Your task to perform on an android device: create a new album in the google photos Image 0: 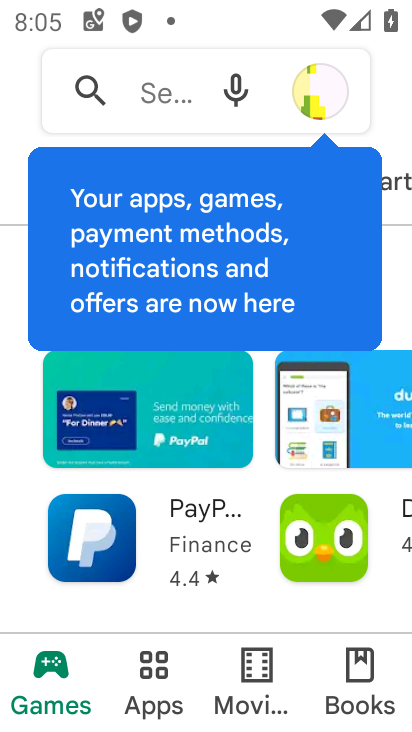
Step 0: press back button
Your task to perform on an android device: create a new album in the google photos Image 1: 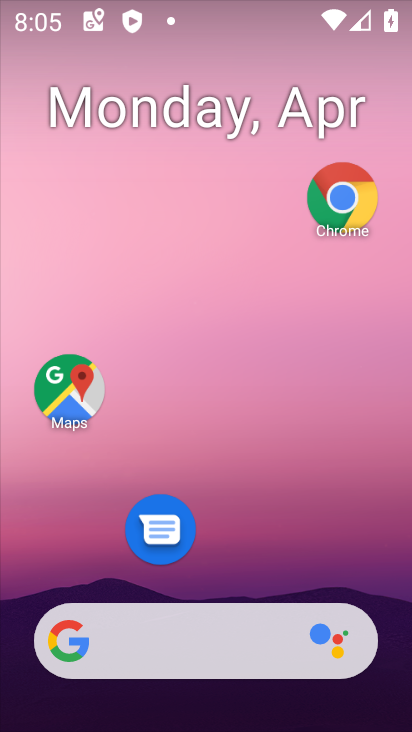
Step 1: drag from (234, 479) to (288, 99)
Your task to perform on an android device: create a new album in the google photos Image 2: 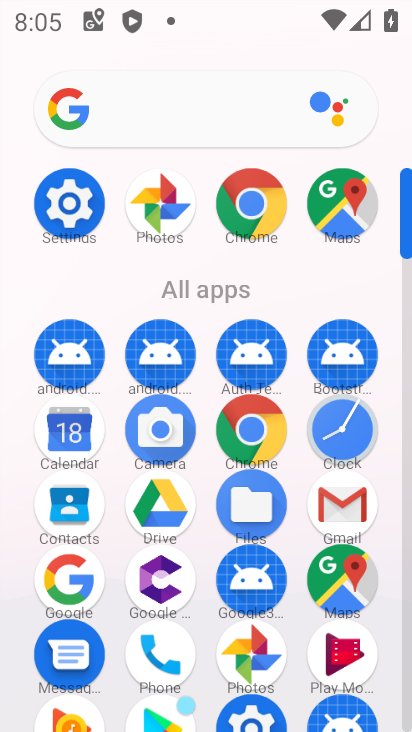
Step 2: click (263, 647)
Your task to perform on an android device: create a new album in the google photos Image 3: 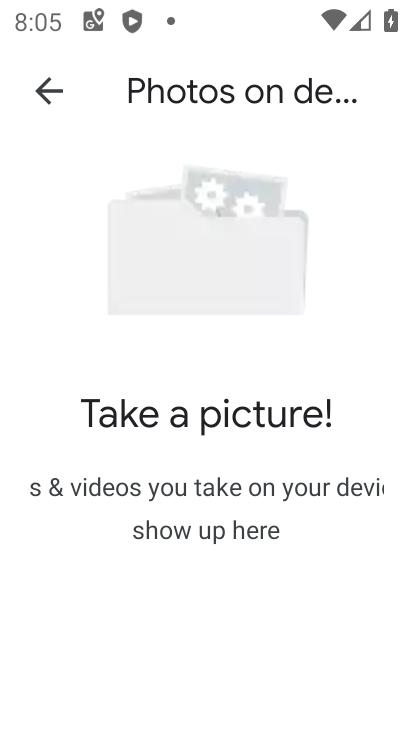
Step 3: click (39, 86)
Your task to perform on an android device: create a new album in the google photos Image 4: 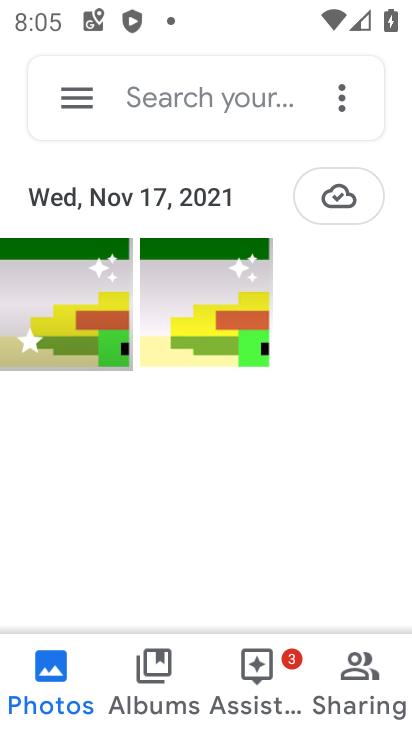
Step 4: click (342, 112)
Your task to perform on an android device: create a new album in the google photos Image 5: 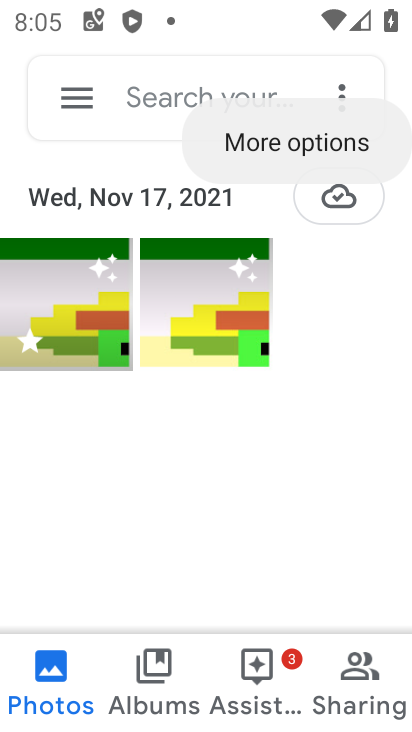
Step 5: click (340, 107)
Your task to perform on an android device: create a new album in the google photos Image 6: 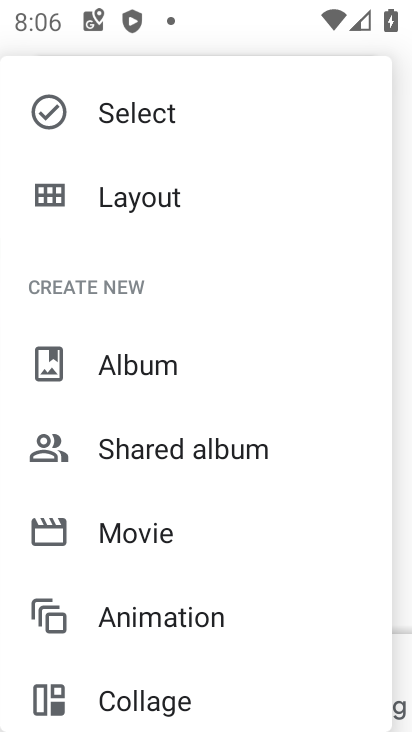
Step 6: click (98, 364)
Your task to perform on an android device: create a new album in the google photos Image 7: 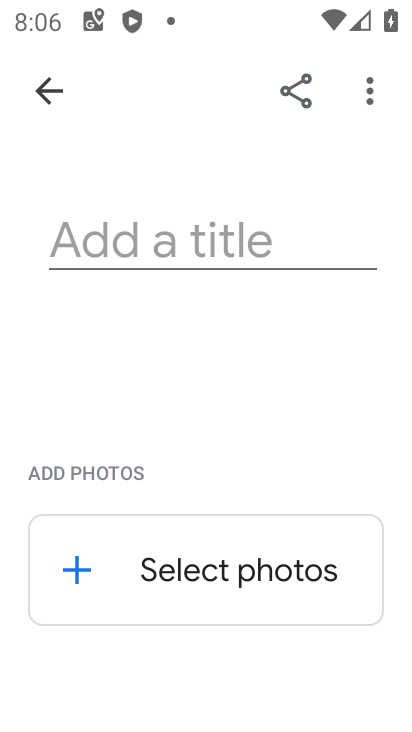
Step 7: click (156, 236)
Your task to perform on an android device: create a new album in the google photos Image 8: 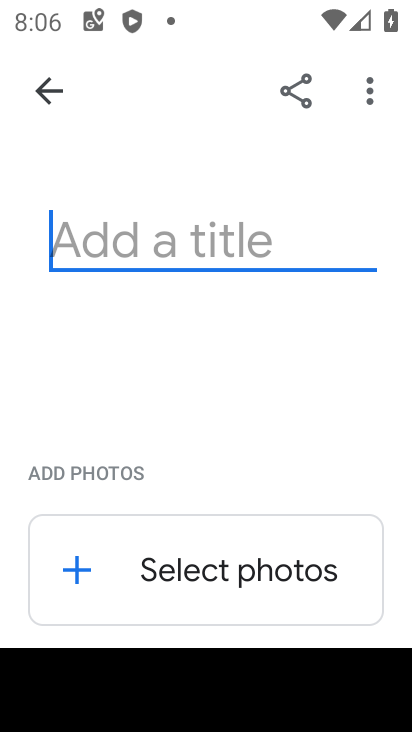
Step 8: type "hvhvh"
Your task to perform on an android device: create a new album in the google photos Image 9: 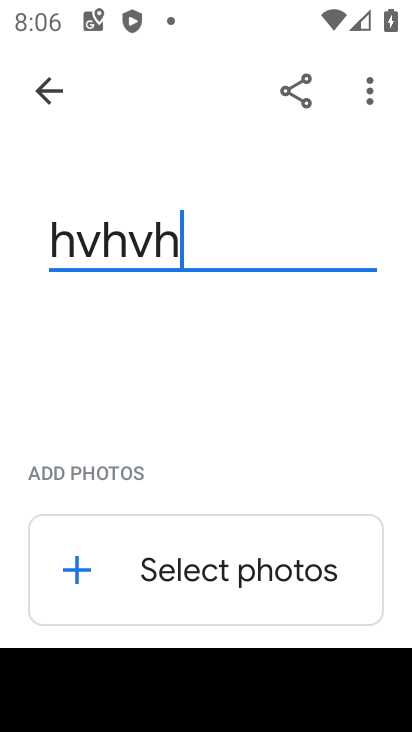
Step 9: click (283, 566)
Your task to perform on an android device: create a new album in the google photos Image 10: 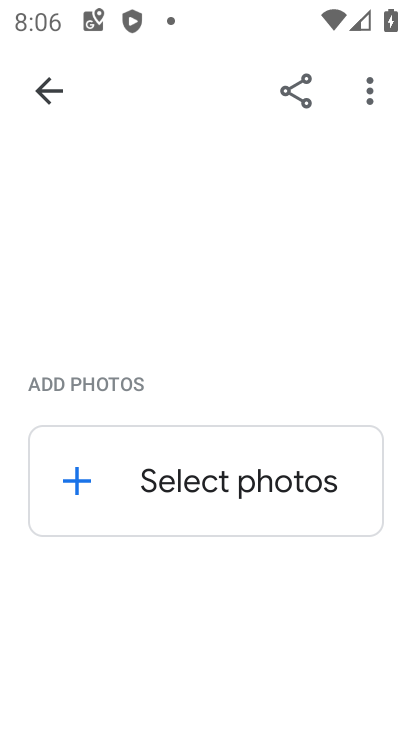
Step 10: click (166, 478)
Your task to perform on an android device: create a new album in the google photos Image 11: 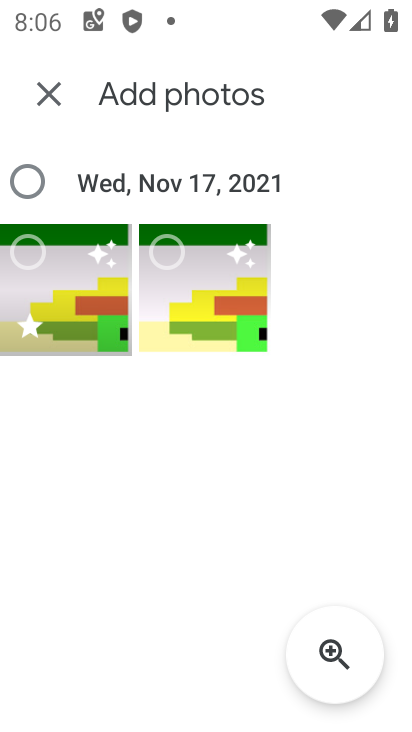
Step 11: click (27, 178)
Your task to perform on an android device: create a new album in the google photos Image 12: 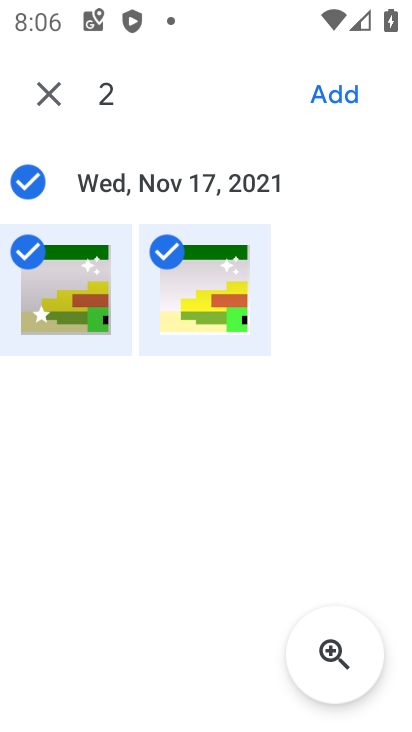
Step 12: click (335, 97)
Your task to perform on an android device: create a new album in the google photos Image 13: 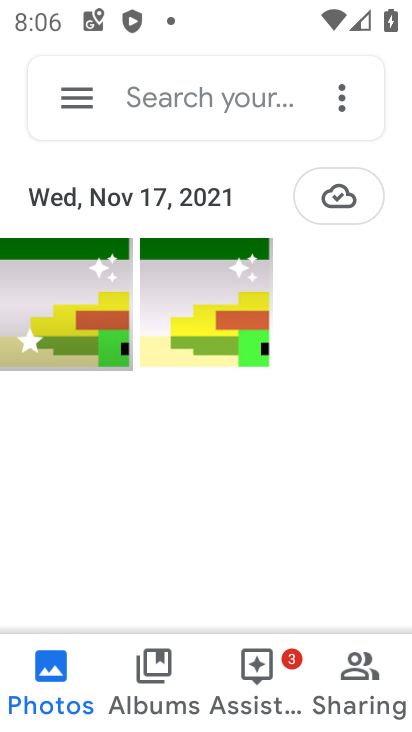
Step 13: task complete